Your task to perform on an android device: Go to sound settings Image 0: 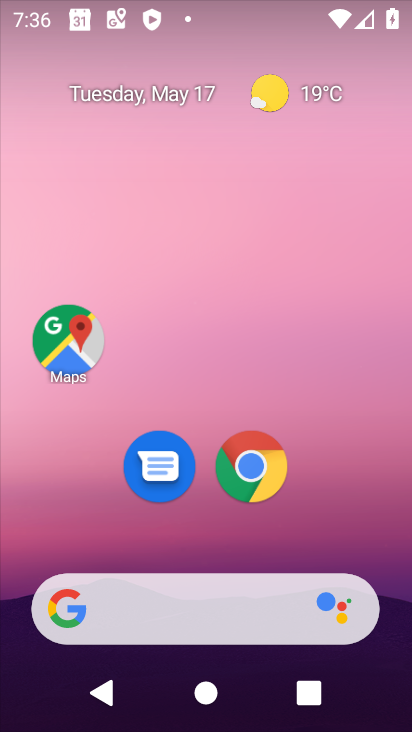
Step 0: press home button
Your task to perform on an android device: Go to sound settings Image 1: 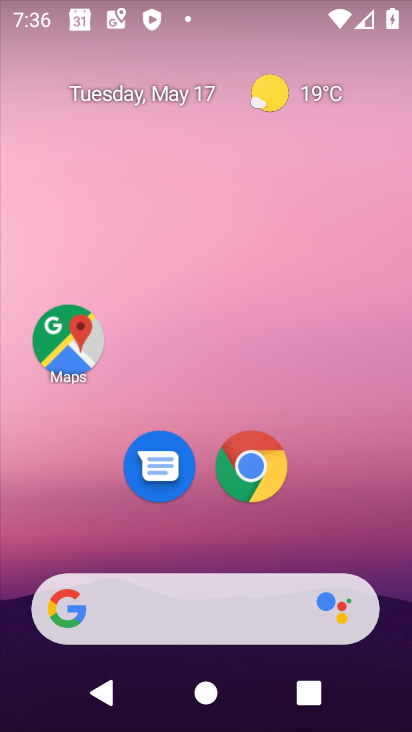
Step 1: drag from (176, 618) to (325, 24)
Your task to perform on an android device: Go to sound settings Image 2: 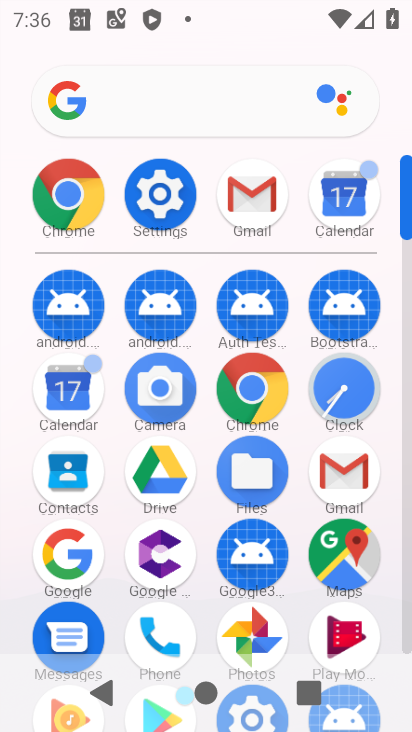
Step 2: click (165, 191)
Your task to perform on an android device: Go to sound settings Image 3: 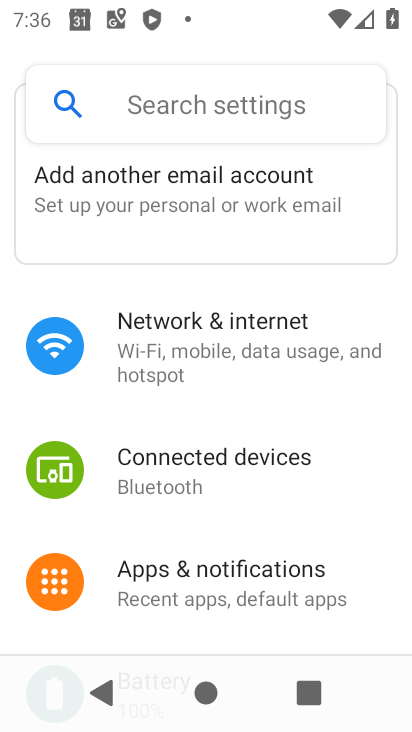
Step 3: drag from (258, 532) to (361, 236)
Your task to perform on an android device: Go to sound settings Image 4: 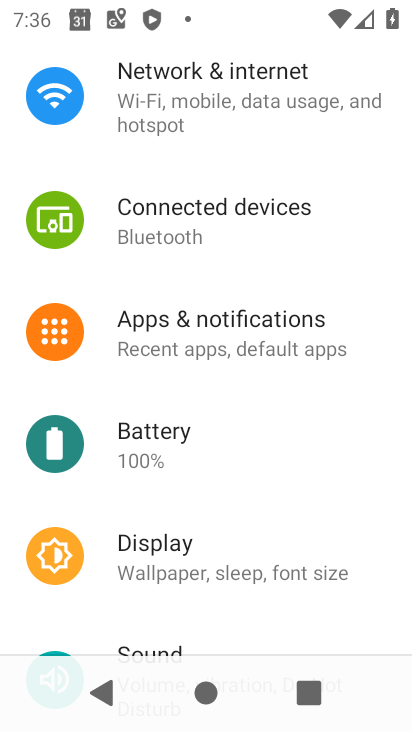
Step 4: drag from (257, 529) to (288, 275)
Your task to perform on an android device: Go to sound settings Image 5: 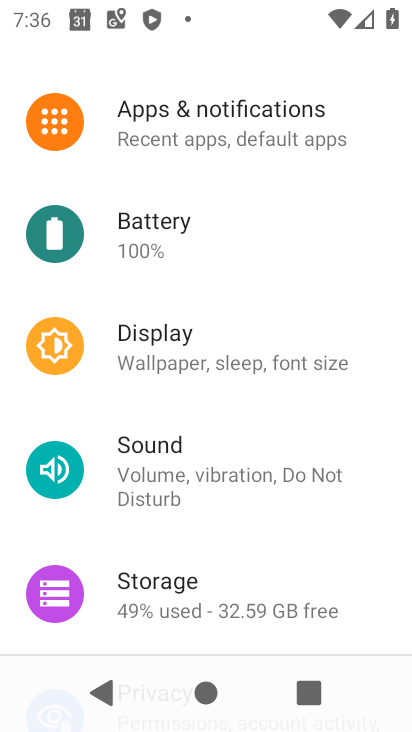
Step 5: click (189, 477)
Your task to perform on an android device: Go to sound settings Image 6: 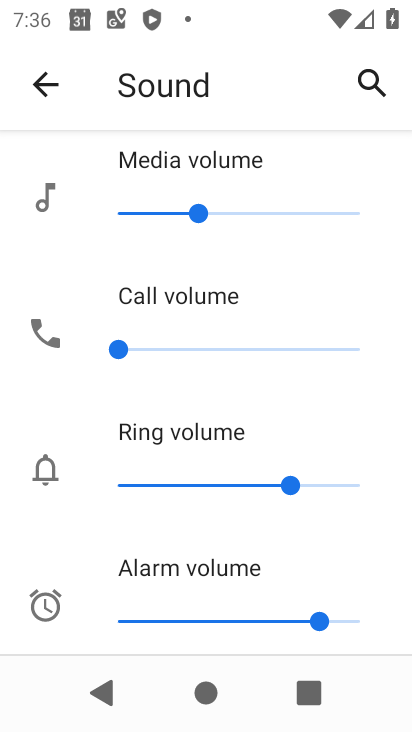
Step 6: task complete